Your task to perform on an android device: Open calendar and show me the third week of next month Image 0: 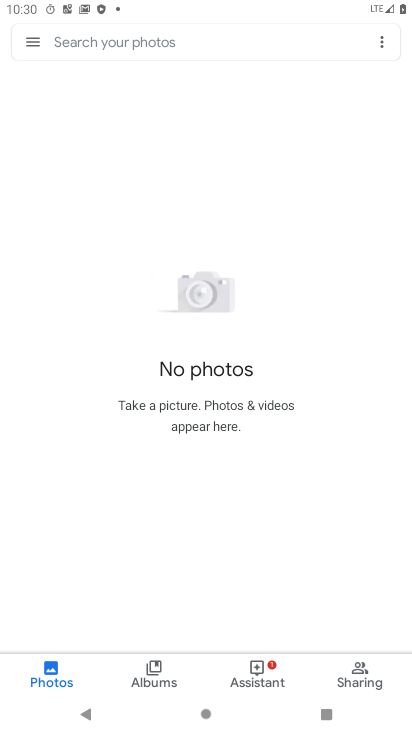
Step 0: press home button
Your task to perform on an android device: Open calendar and show me the third week of next month Image 1: 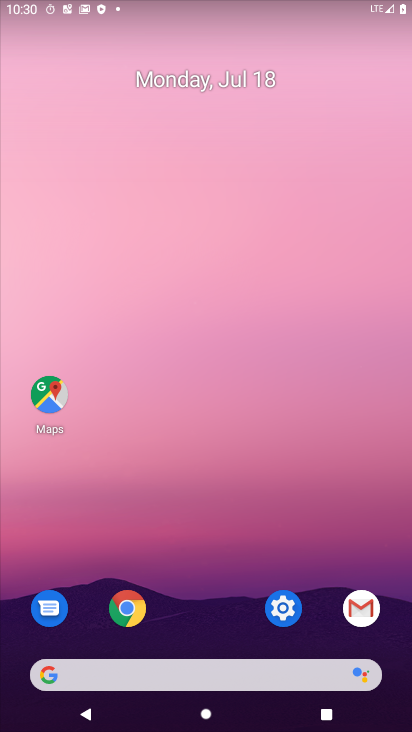
Step 1: drag from (323, 688) to (263, 244)
Your task to perform on an android device: Open calendar and show me the third week of next month Image 2: 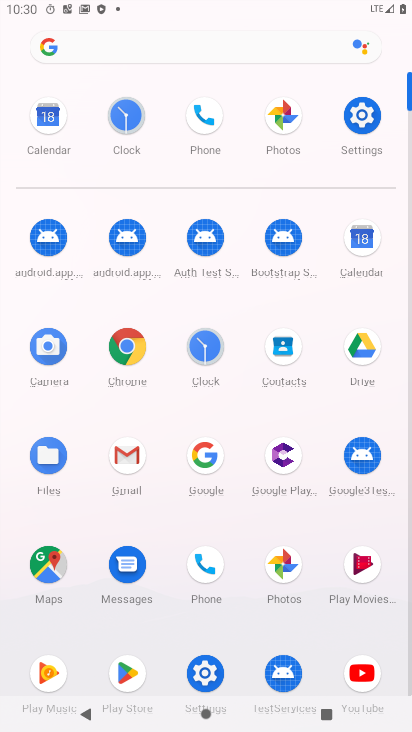
Step 2: click (359, 246)
Your task to perform on an android device: Open calendar and show me the third week of next month Image 3: 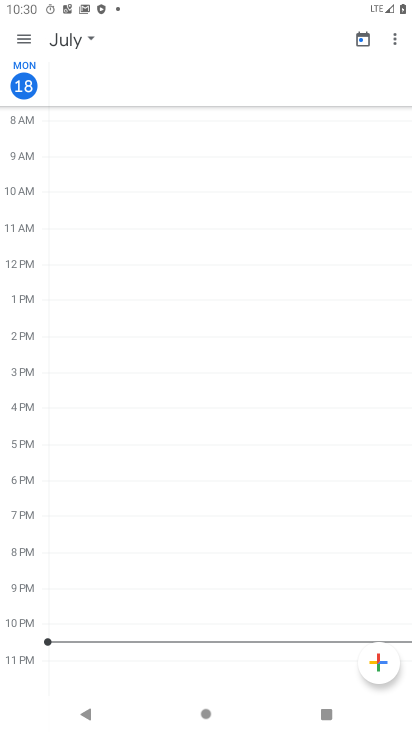
Step 3: click (38, 40)
Your task to perform on an android device: Open calendar and show me the third week of next month Image 4: 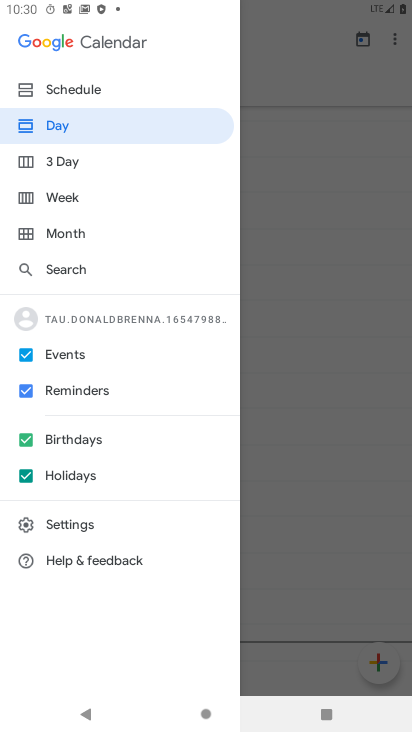
Step 4: click (68, 230)
Your task to perform on an android device: Open calendar and show me the third week of next month Image 5: 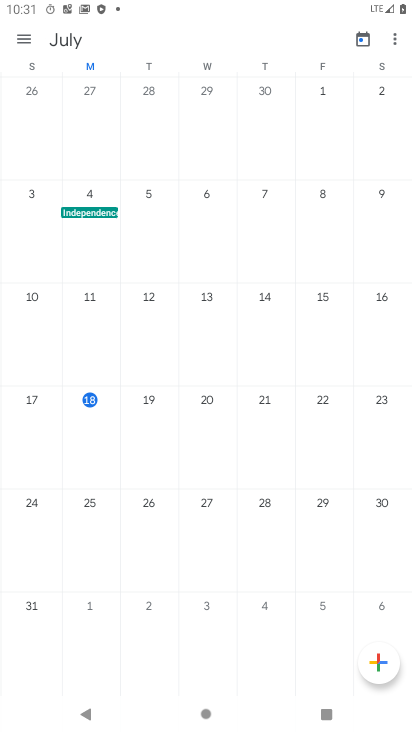
Step 5: drag from (365, 406) to (0, 423)
Your task to perform on an android device: Open calendar and show me the third week of next month Image 6: 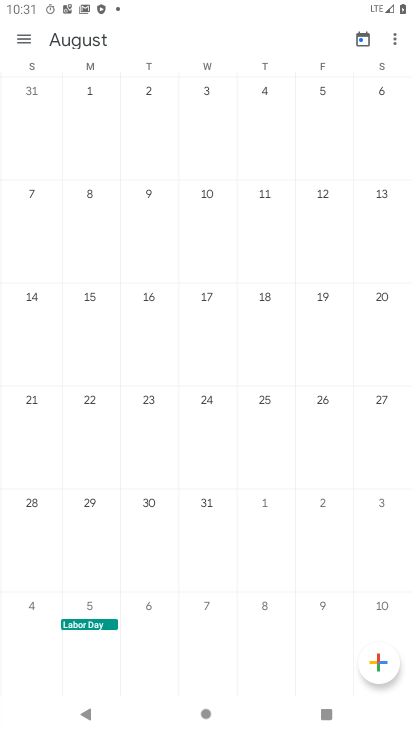
Step 6: click (87, 407)
Your task to perform on an android device: Open calendar and show me the third week of next month Image 7: 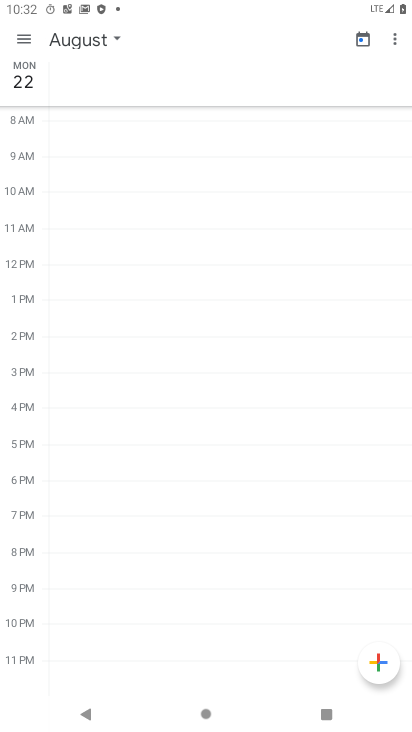
Step 7: task complete